Your task to perform on an android device: Find coffee shops on Maps Image 0: 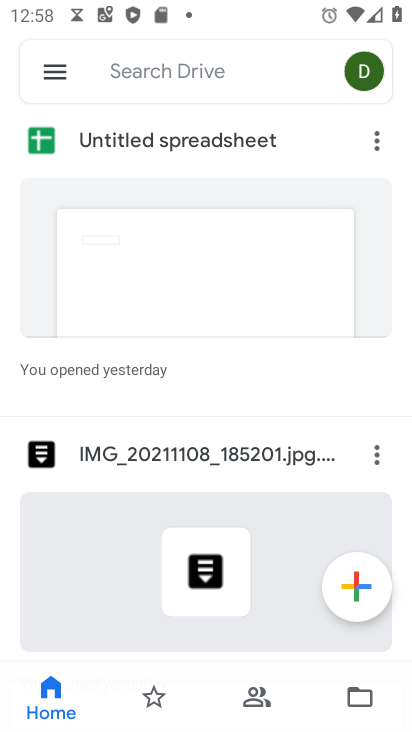
Step 0: press home button
Your task to perform on an android device: Find coffee shops on Maps Image 1: 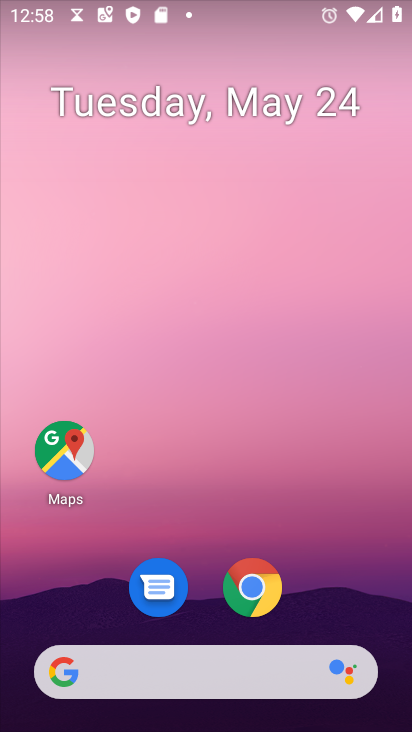
Step 1: click (59, 457)
Your task to perform on an android device: Find coffee shops on Maps Image 2: 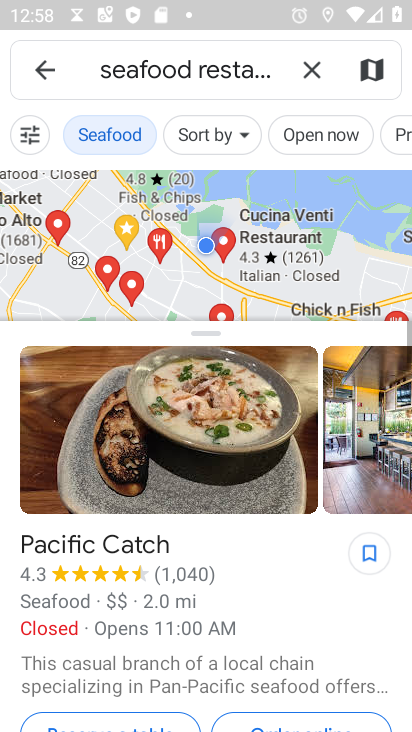
Step 2: click (307, 72)
Your task to perform on an android device: Find coffee shops on Maps Image 3: 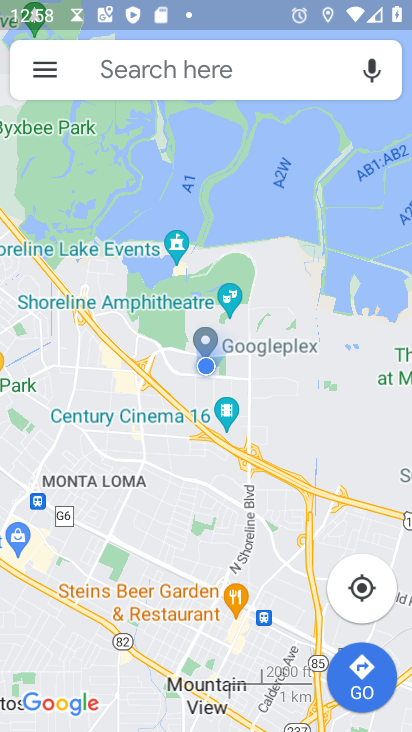
Step 3: click (151, 81)
Your task to perform on an android device: Find coffee shops on Maps Image 4: 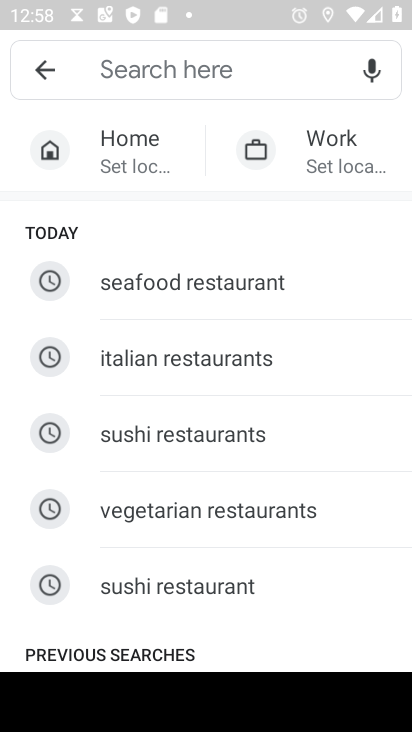
Step 4: type "coffee shops"
Your task to perform on an android device: Find coffee shops on Maps Image 5: 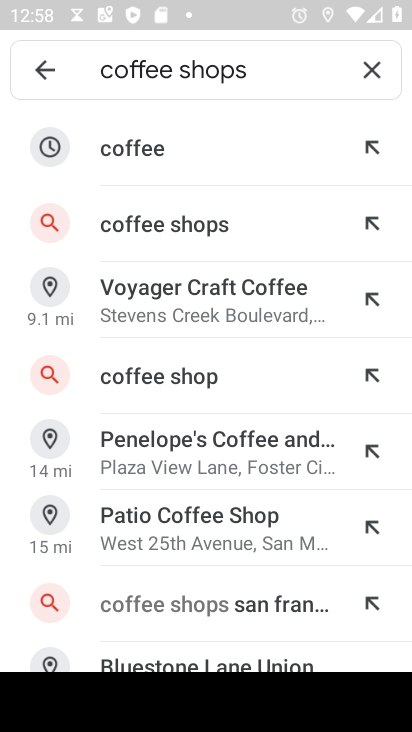
Step 5: click (171, 235)
Your task to perform on an android device: Find coffee shops on Maps Image 6: 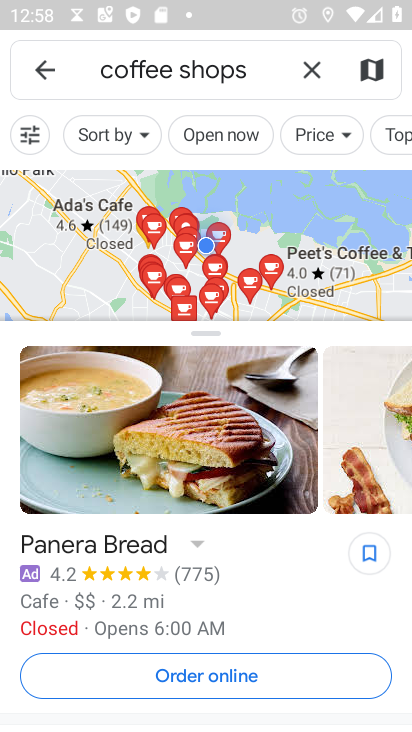
Step 6: task complete